Your task to perform on an android device: Go to accessibility settings Image 0: 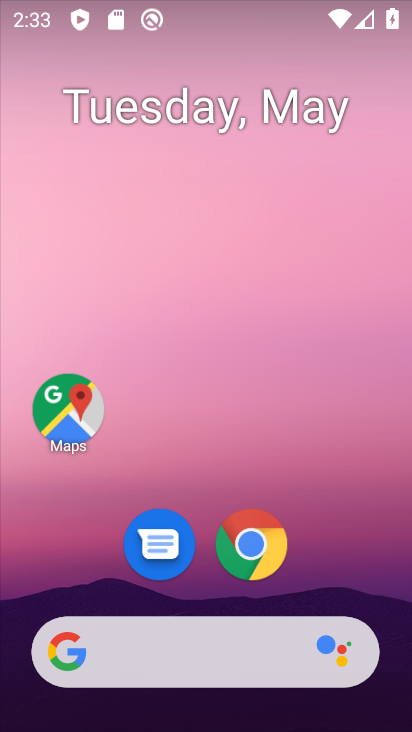
Step 0: drag from (318, 590) to (263, 112)
Your task to perform on an android device: Go to accessibility settings Image 1: 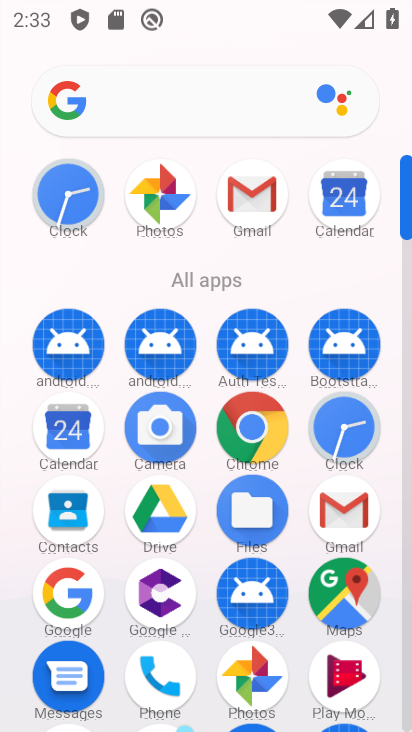
Step 1: drag from (203, 647) to (244, 323)
Your task to perform on an android device: Go to accessibility settings Image 2: 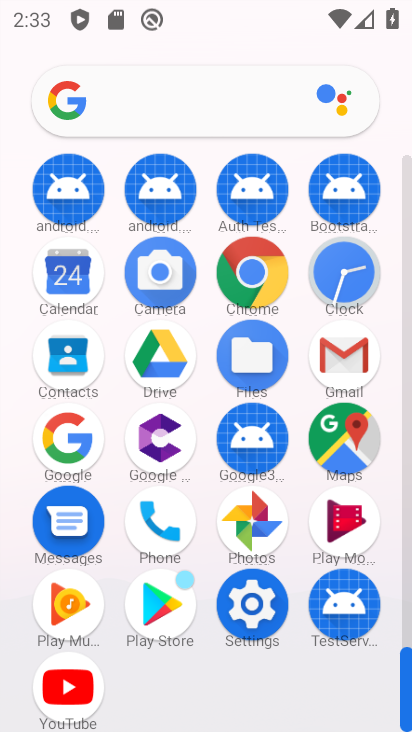
Step 2: click (252, 605)
Your task to perform on an android device: Go to accessibility settings Image 3: 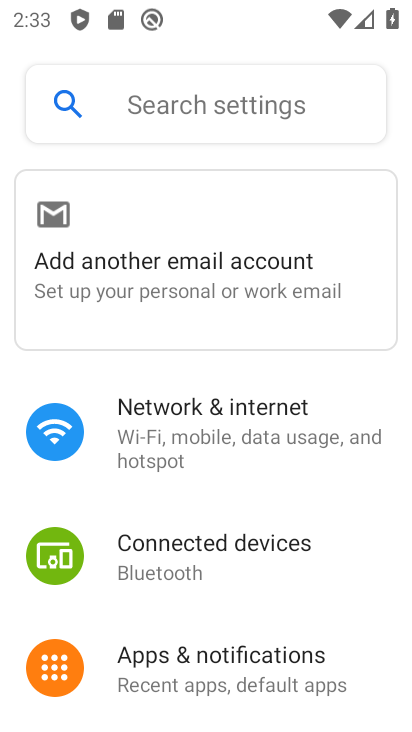
Step 3: drag from (186, 611) to (203, 451)
Your task to perform on an android device: Go to accessibility settings Image 4: 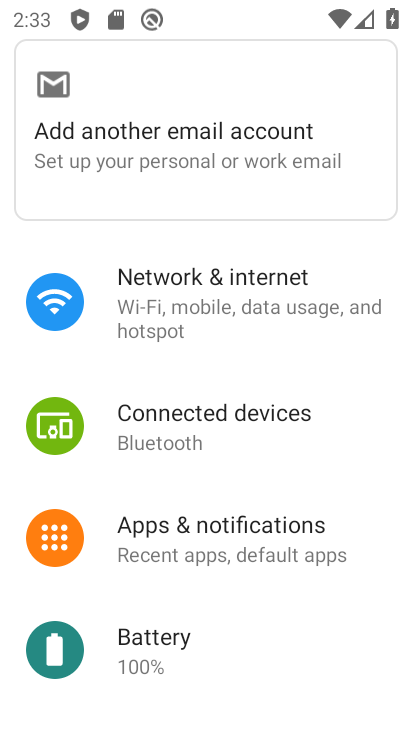
Step 4: drag from (150, 602) to (221, 466)
Your task to perform on an android device: Go to accessibility settings Image 5: 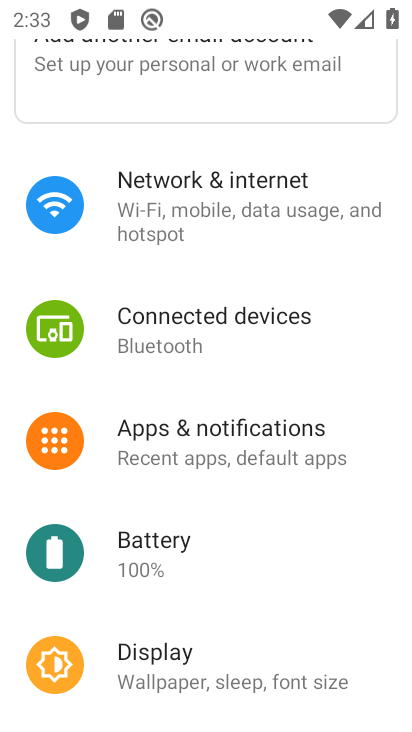
Step 5: drag from (208, 618) to (273, 482)
Your task to perform on an android device: Go to accessibility settings Image 6: 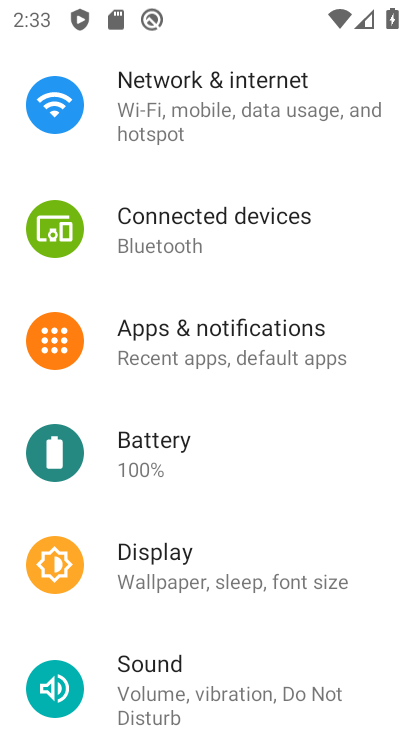
Step 6: drag from (219, 620) to (279, 487)
Your task to perform on an android device: Go to accessibility settings Image 7: 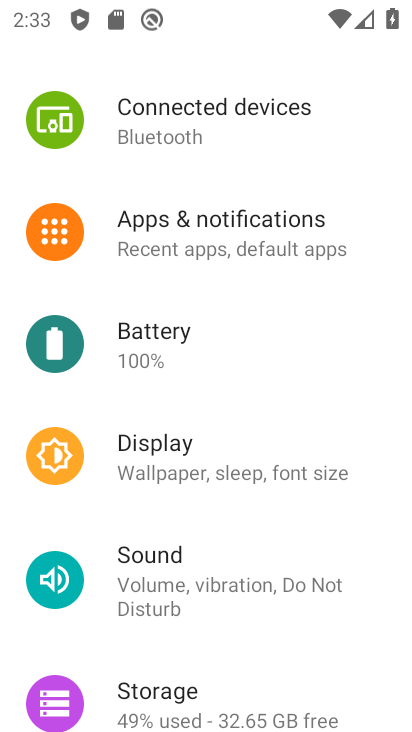
Step 7: drag from (190, 637) to (266, 497)
Your task to perform on an android device: Go to accessibility settings Image 8: 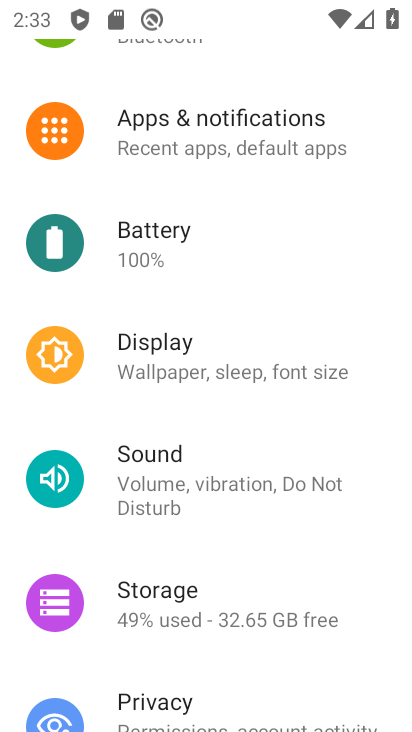
Step 8: drag from (240, 535) to (272, 426)
Your task to perform on an android device: Go to accessibility settings Image 9: 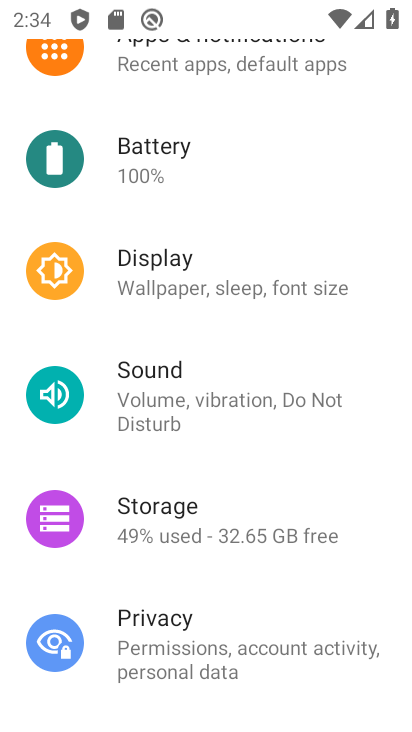
Step 9: drag from (200, 562) to (289, 452)
Your task to perform on an android device: Go to accessibility settings Image 10: 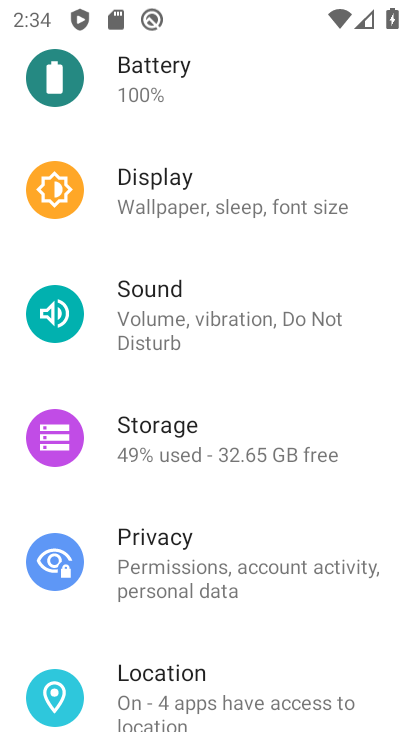
Step 10: drag from (206, 620) to (299, 518)
Your task to perform on an android device: Go to accessibility settings Image 11: 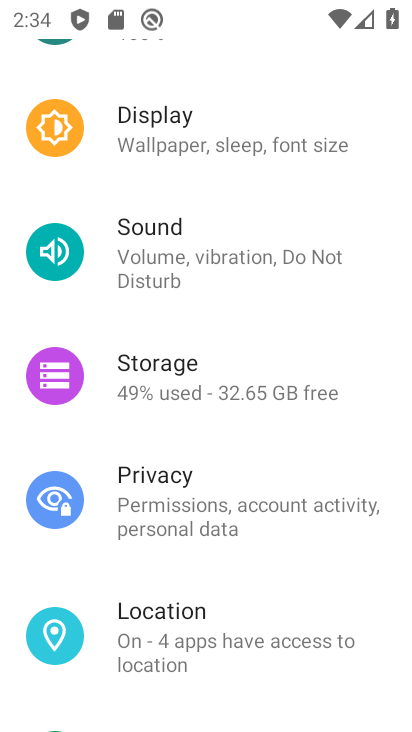
Step 11: drag from (245, 591) to (305, 460)
Your task to perform on an android device: Go to accessibility settings Image 12: 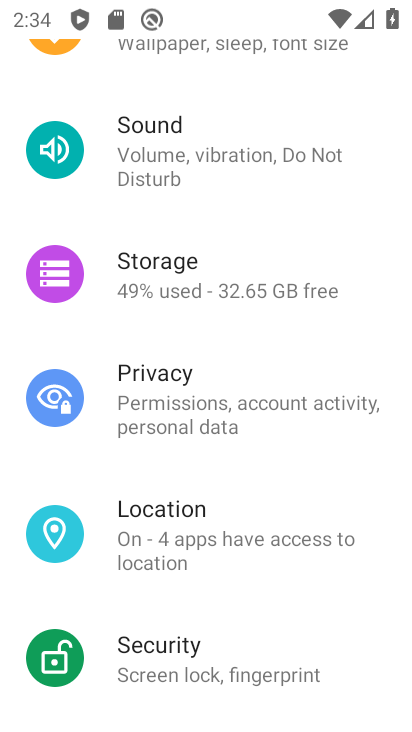
Step 12: drag from (216, 593) to (263, 486)
Your task to perform on an android device: Go to accessibility settings Image 13: 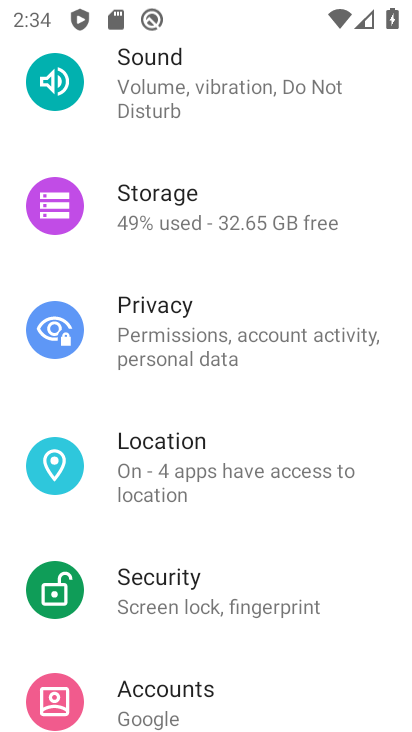
Step 13: drag from (190, 637) to (298, 506)
Your task to perform on an android device: Go to accessibility settings Image 14: 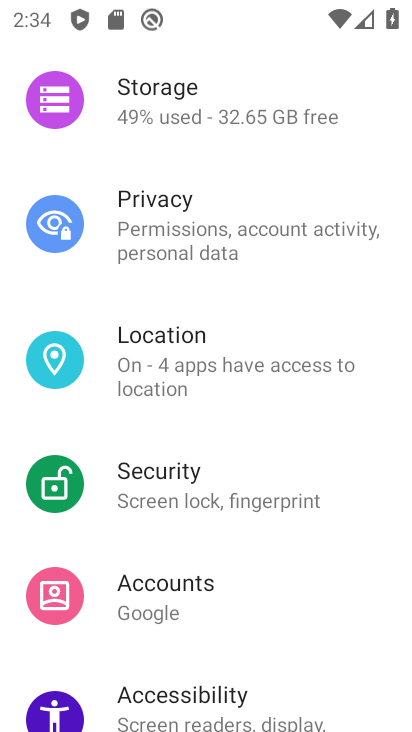
Step 14: drag from (207, 640) to (313, 498)
Your task to perform on an android device: Go to accessibility settings Image 15: 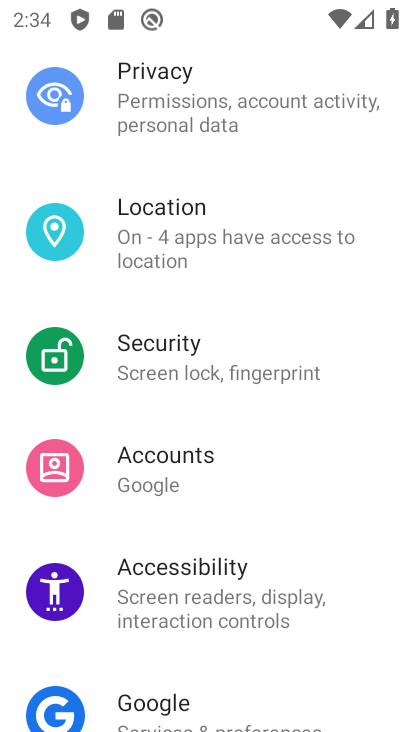
Step 15: click (200, 561)
Your task to perform on an android device: Go to accessibility settings Image 16: 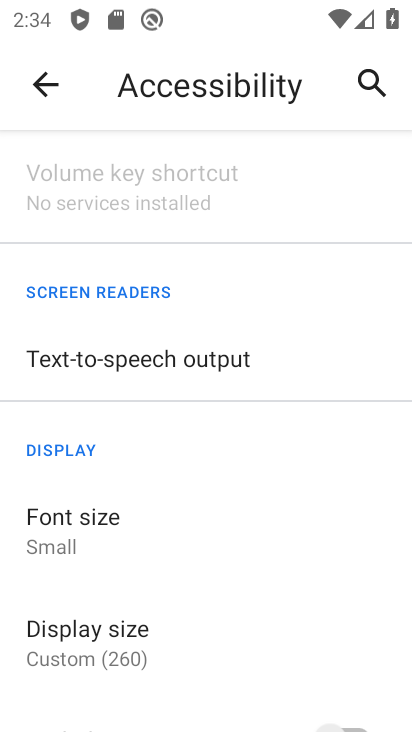
Step 16: task complete